Your task to perform on an android device: Open Youtube and go to "Your channel" Image 0: 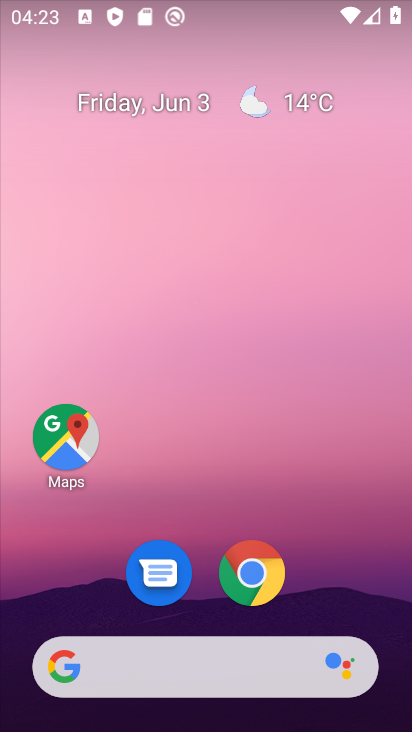
Step 0: drag from (250, 634) to (272, 42)
Your task to perform on an android device: Open Youtube and go to "Your channel" Image 1: 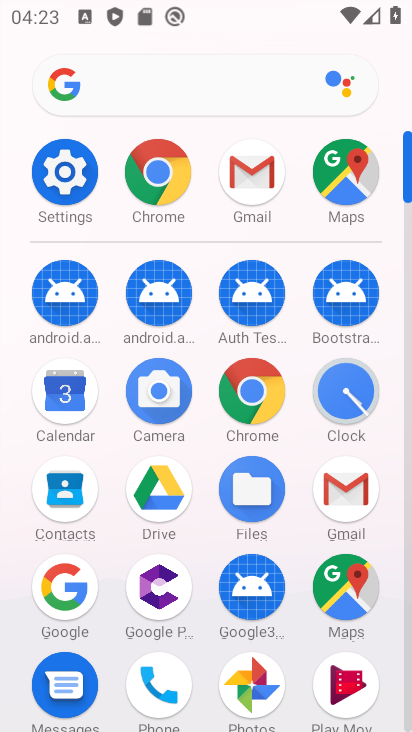
Step 1: drag from (290, 571) to (289, 89)
Your task to perform on an android device: Open Youtube and go to "Your channel" Image 2: 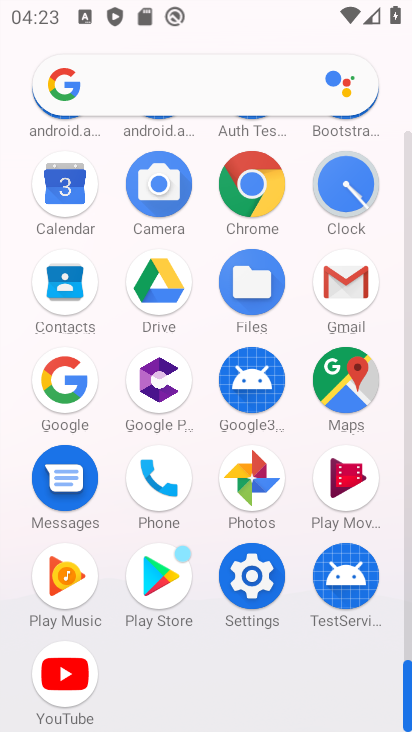
Step 2: click (68, 689)
Your task to perform on an android device: Open Youtube and go to "Your channel" Image 3: 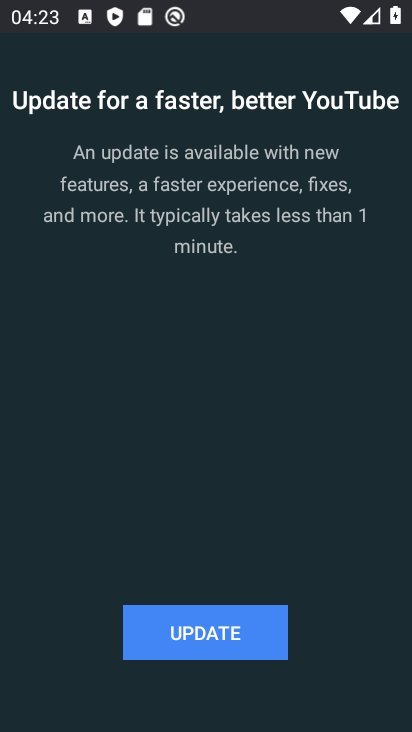
Step 3: click (224, 618)
Your task to perform on an android device: Open Youtube and go to "Your channel" Image 4: 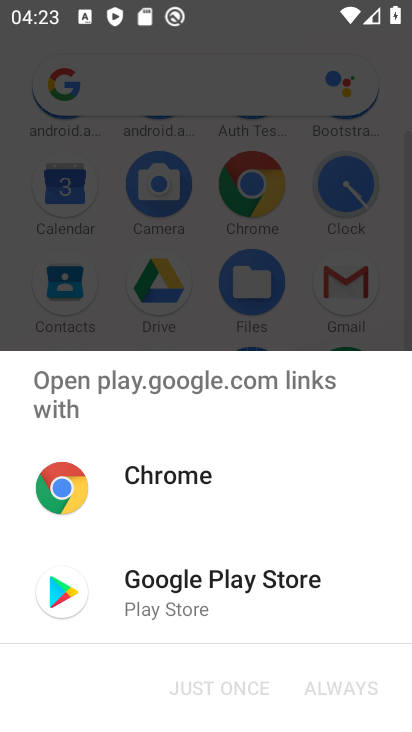
Step 4: click (263, 595)
Your task to perform on an android device: Open Youtube and go to "Your channel" Image 5: 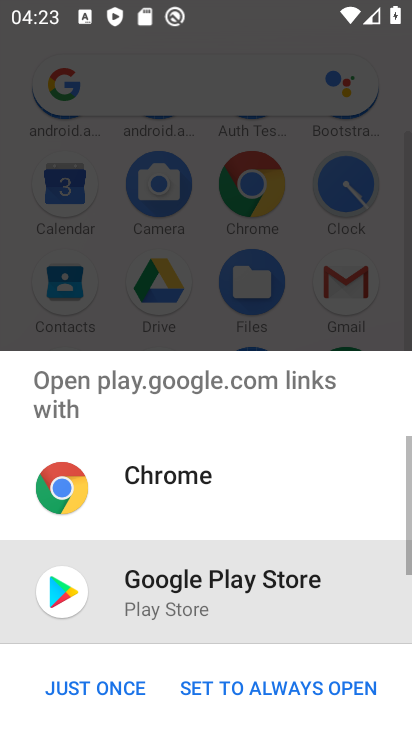
Step 5: click (134, 690)
Your task to perform on an android device: Open Youtube and go to "Your channel" Image 6: 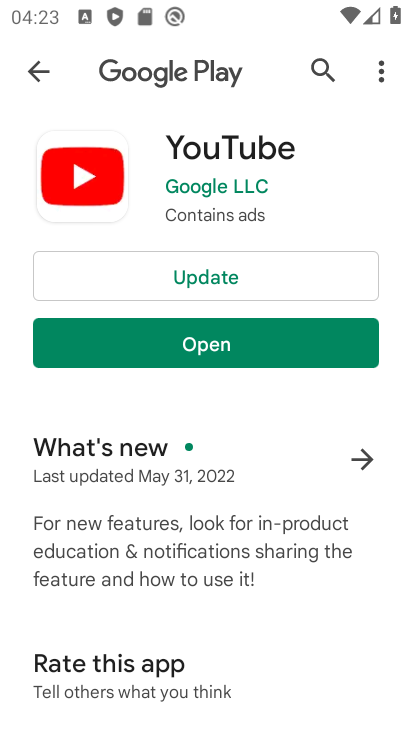
Step 6: click (232, 293)
Your task to perform on an android device: Open Youtube and go to "Your channel" Image 7: 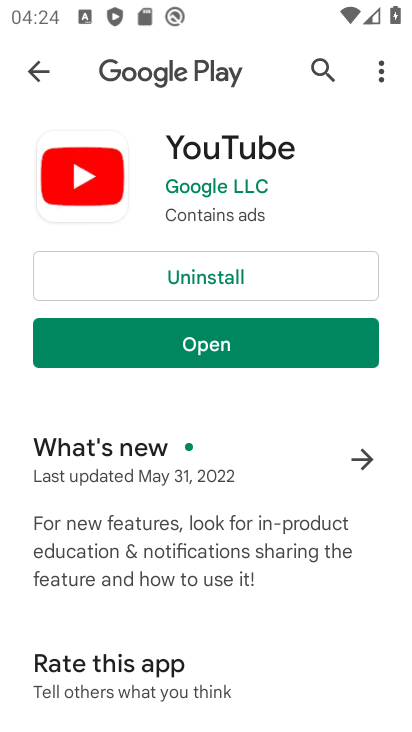
Step 7: click (330, 347)
Your task to perform on an android device: Open Youtube and go to "Your channel" Image 8: 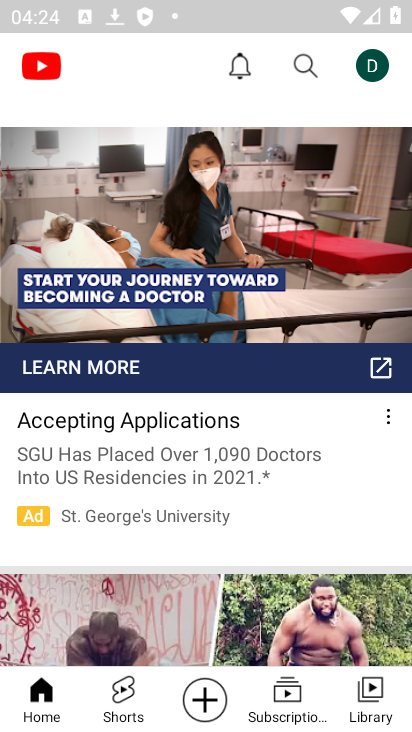
Step 8: click (366, 702)
Your task to perform on an android device: Open Youtube and go to "Your channel" Image 9: 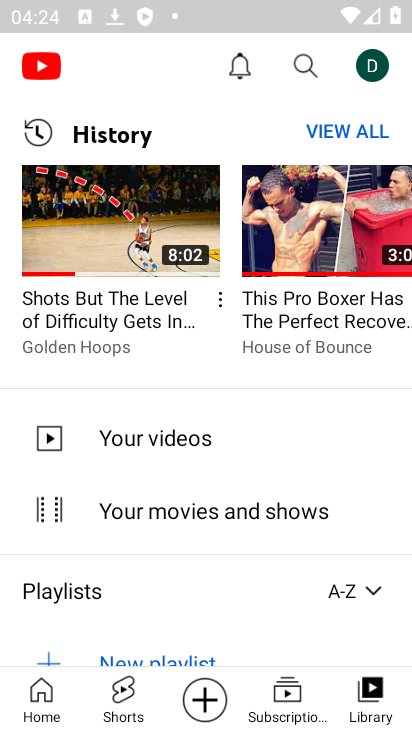
Step 9: click (367, 78)
Your task to perform on an android device: Open Youtube and go to "Your channel" Image 10: 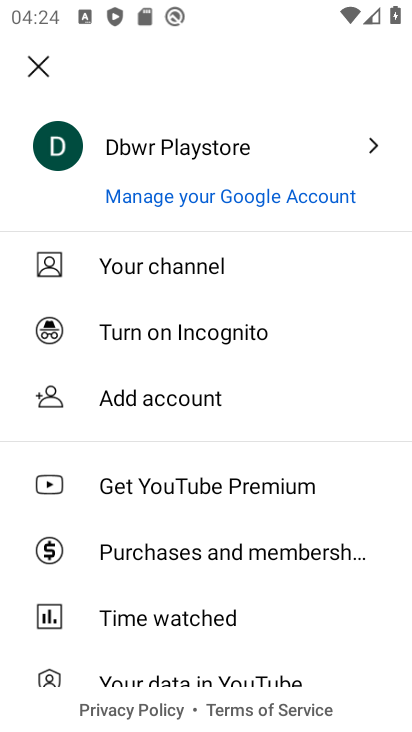
Step 10: click (210, 267)
Your task to perform on an android device: Open Youtube and go to "Your channel" Image 11: 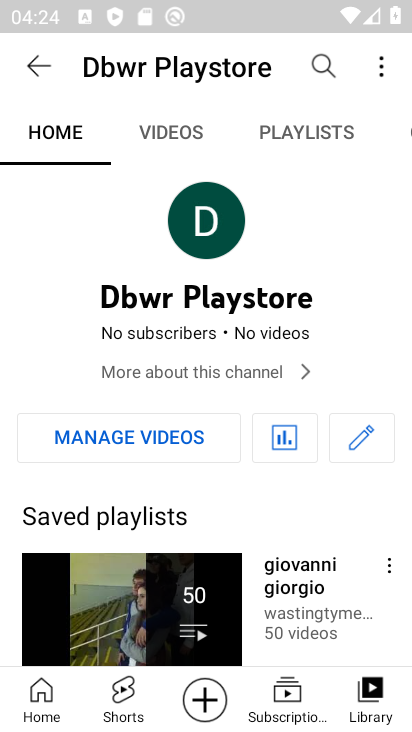
Step 11: task complete